Your task to perform on an android device: Open notification settings Image 0: 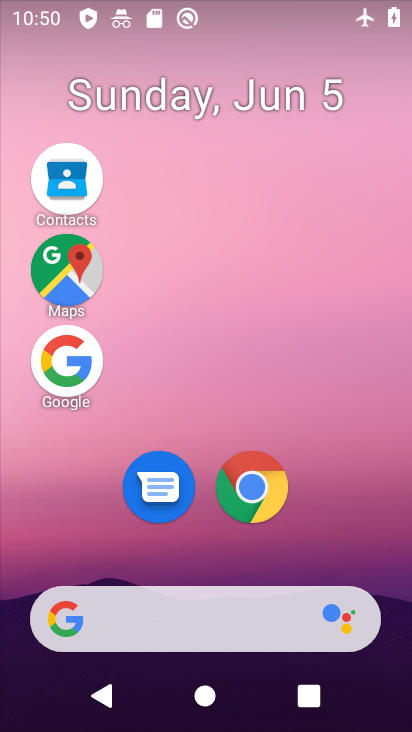
Step 0: drag from (214, 562) to (207, 64)
Your task to perform on an android device: Open notification settings Image 1: 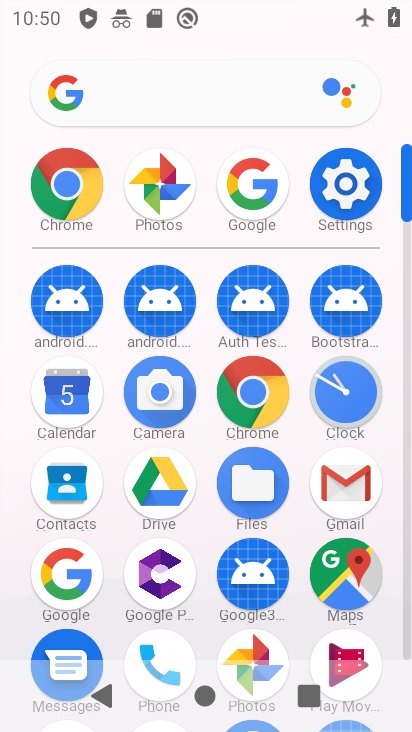
Step 1: drag from (230, 546) to (258, 228)
Your task to perform on an android device: Open notification settings Image 2: 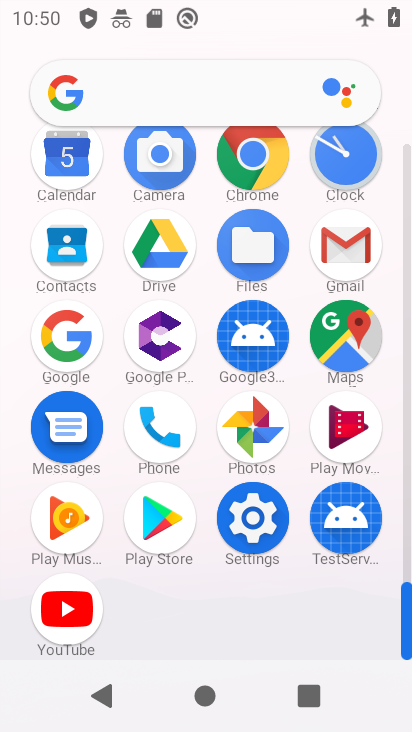
Step 2: click (250, 534)
Your task to perform on an android device: Open notification settings Image 3: 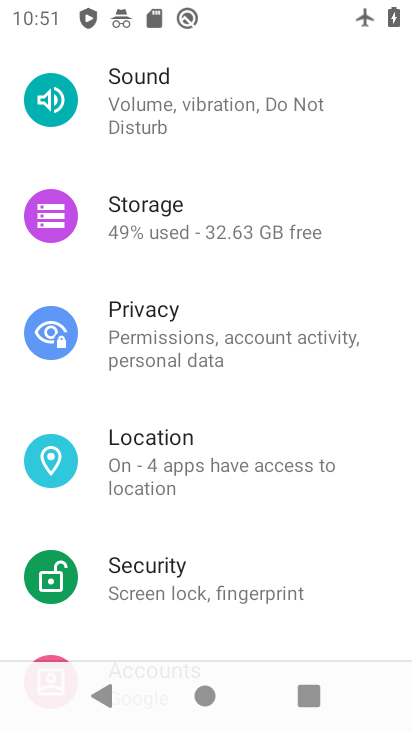
Step 3: drag from (207, 255) to (171, 634)
Your task to perform on an android device: Open notification settings Image 4: 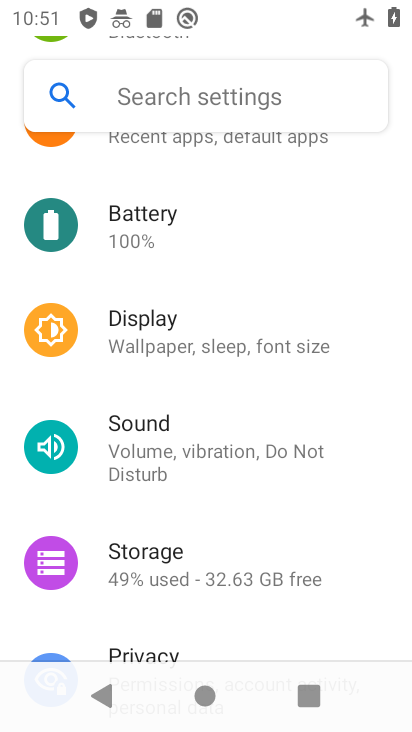
Step 4: drag from (194, 298) to (173, 655)
Your task to perform on an android device: Open notification settings Image 5: 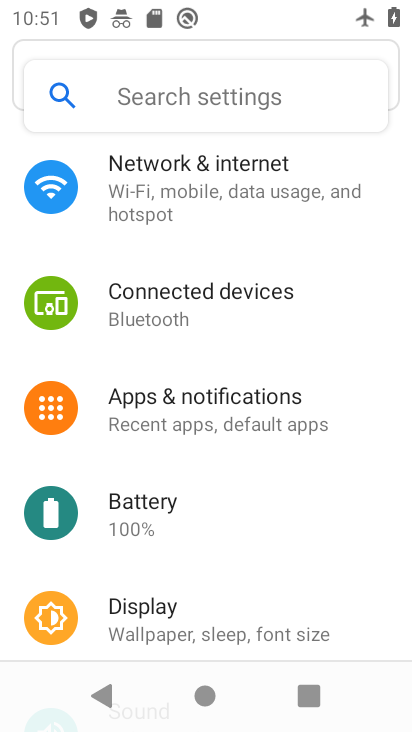
Step 5: click (224, 396)
Your task to perform on an android device: Open notification settings Image 6: 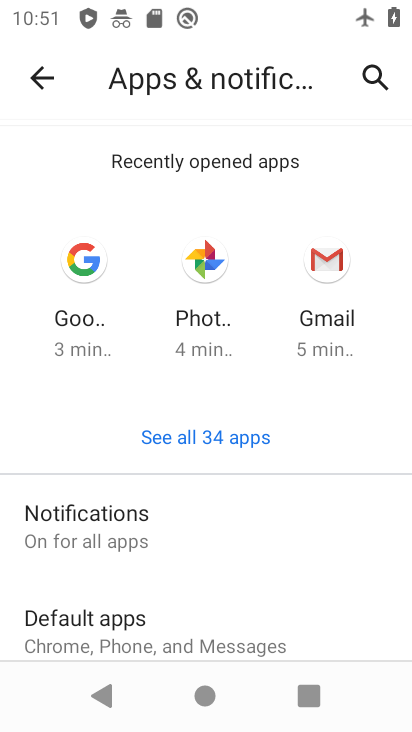
Step 6: click (148, 534)
Your task to perform on an android device: Open notification settings Image 7: 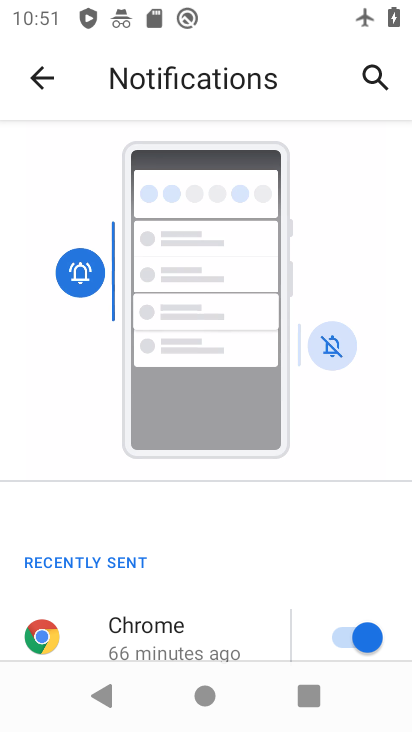
Step 7: task complete